Your task to perform on an android device: Empty the shopping cart on ebay.com. Search for razer blade on ebay.com, select the first entry, and add it to the cart. Image 0: 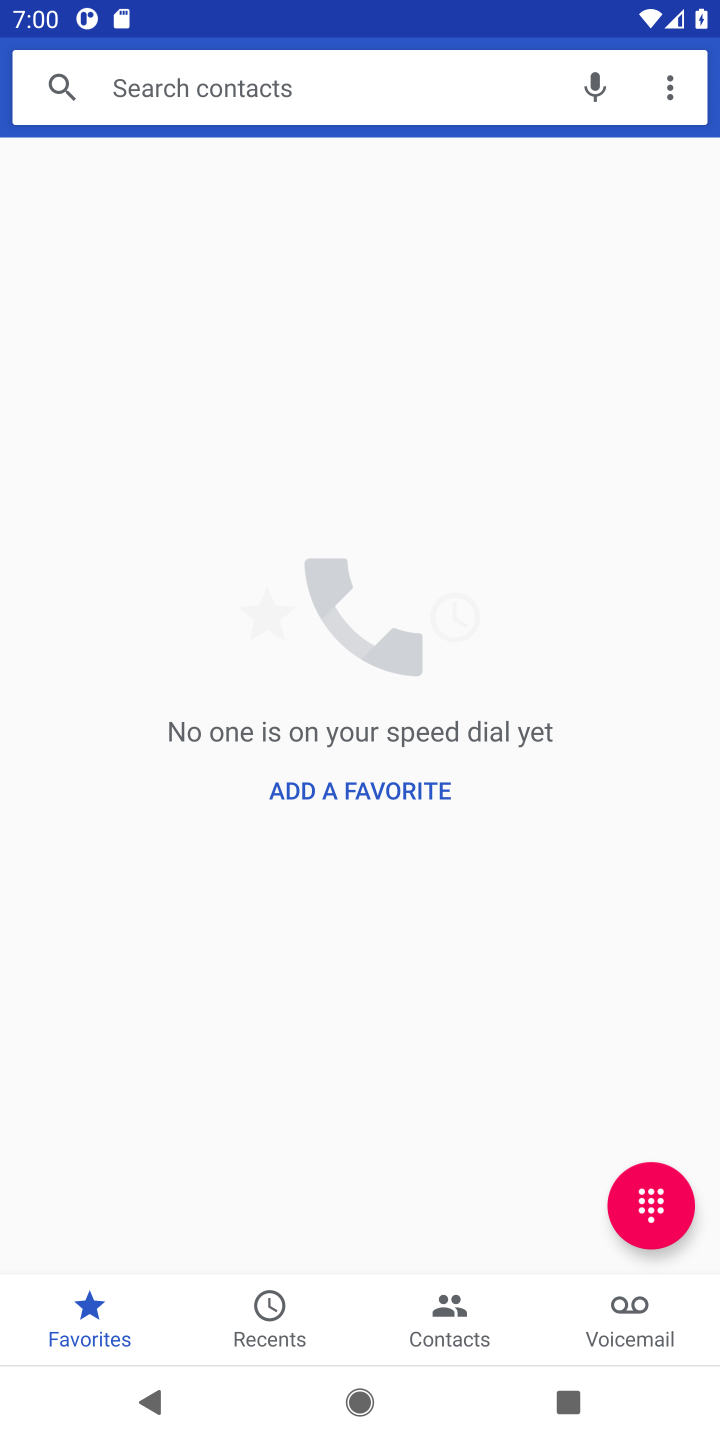
Step 0: press home button
Your task to perform on an android device: Empty the shopping cart on ebay.com. Search for razer blade on ebay.com, select the first entry, and add it to the cart. Image 1: 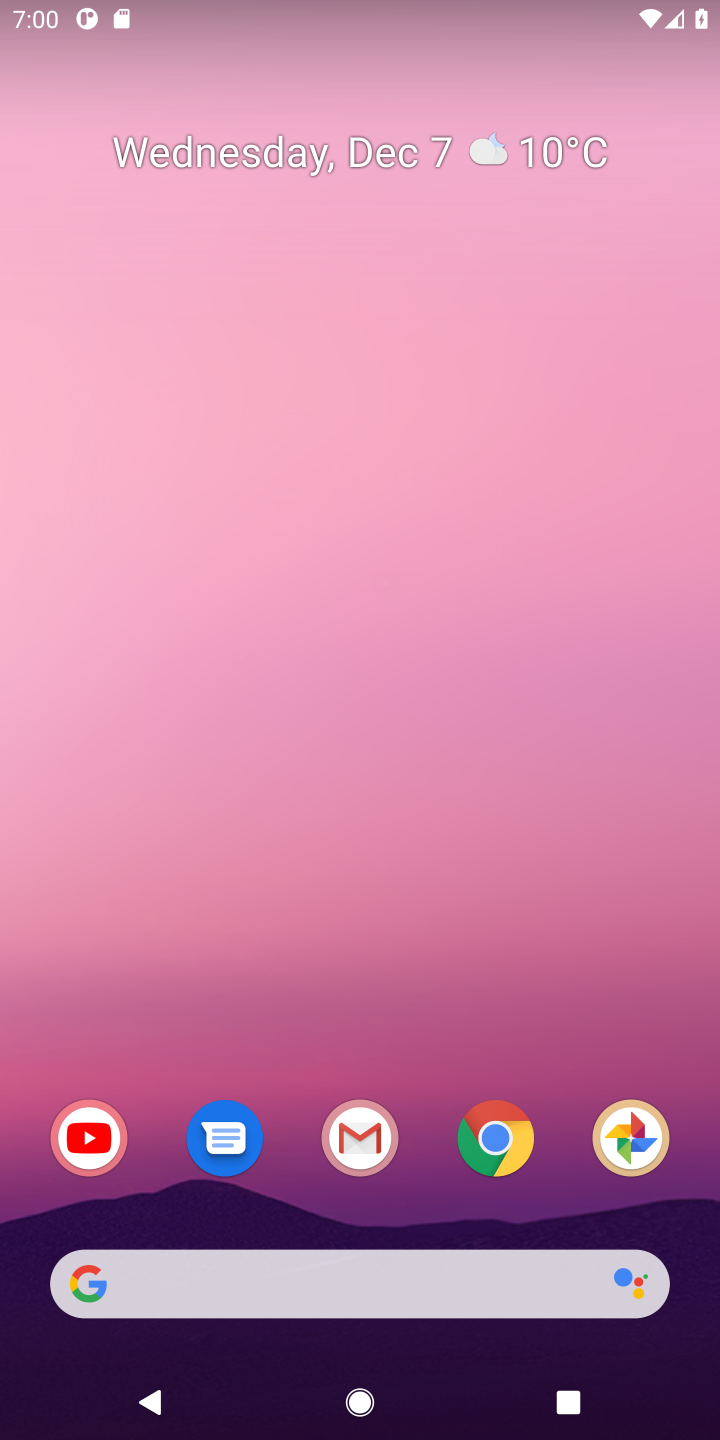
Step 1: click (159, 1278)
Your task to perform on an android device: Empty the shopping cart on ebay.com. Search for razer blade on ebay.com, select the first entry, and add it to the cart. Image 2: 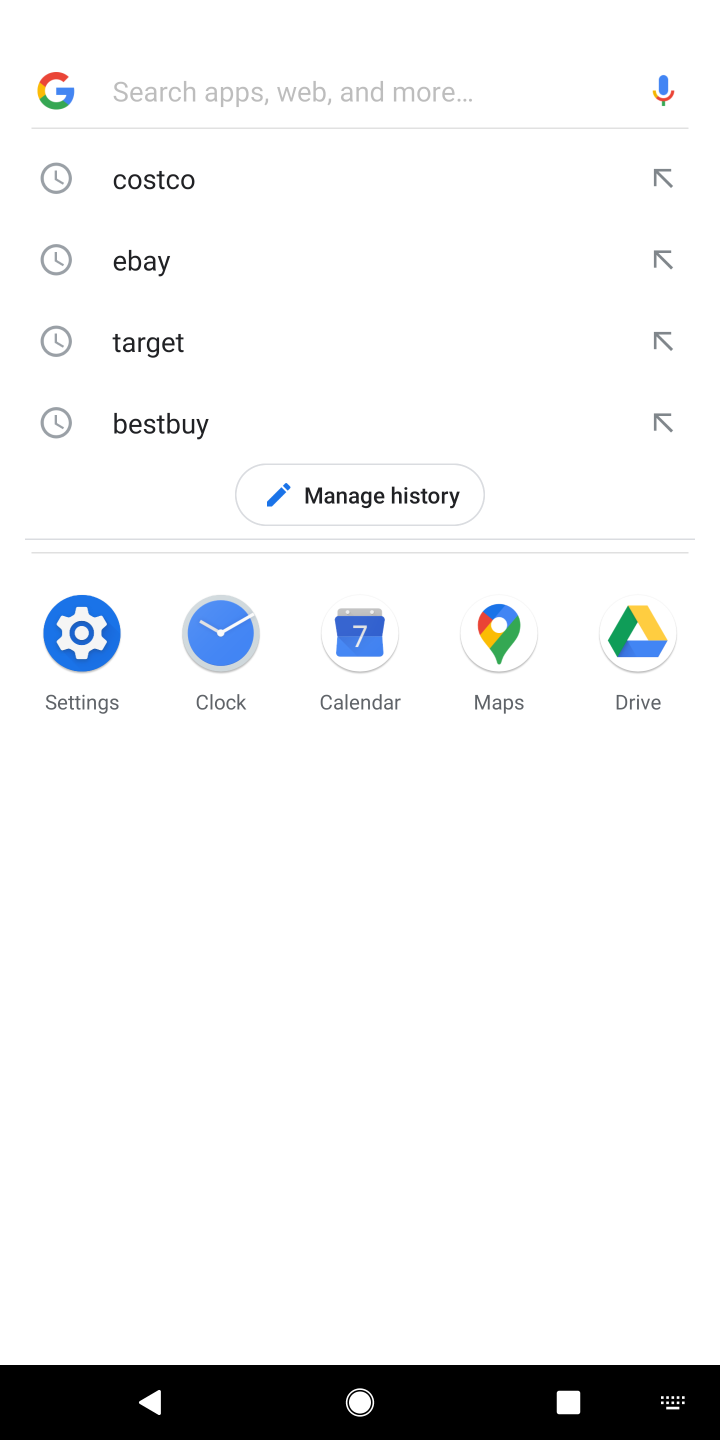
Step 2: type "ebay.com"
Your task to perform on an android device: Empty the shopping cart on ebay.com. Search for razer blade on ebay.com, select the first entry, and add it to the cart. Image 3: 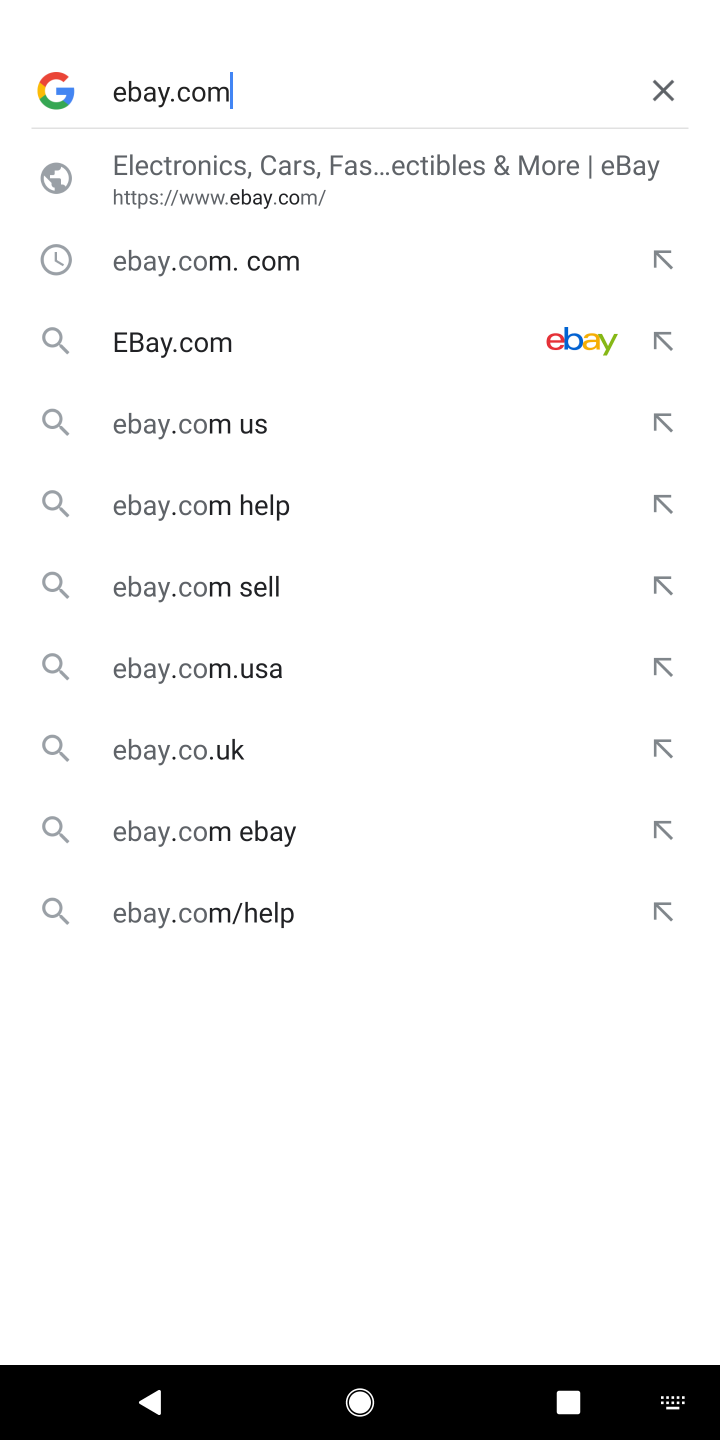
Step 3: press enter
Your task to perform on an android device: Empty the shopping cart on ebay.com. Search for razer blade on ebay.com, select the first entry, and add it to the cart. Image 4: 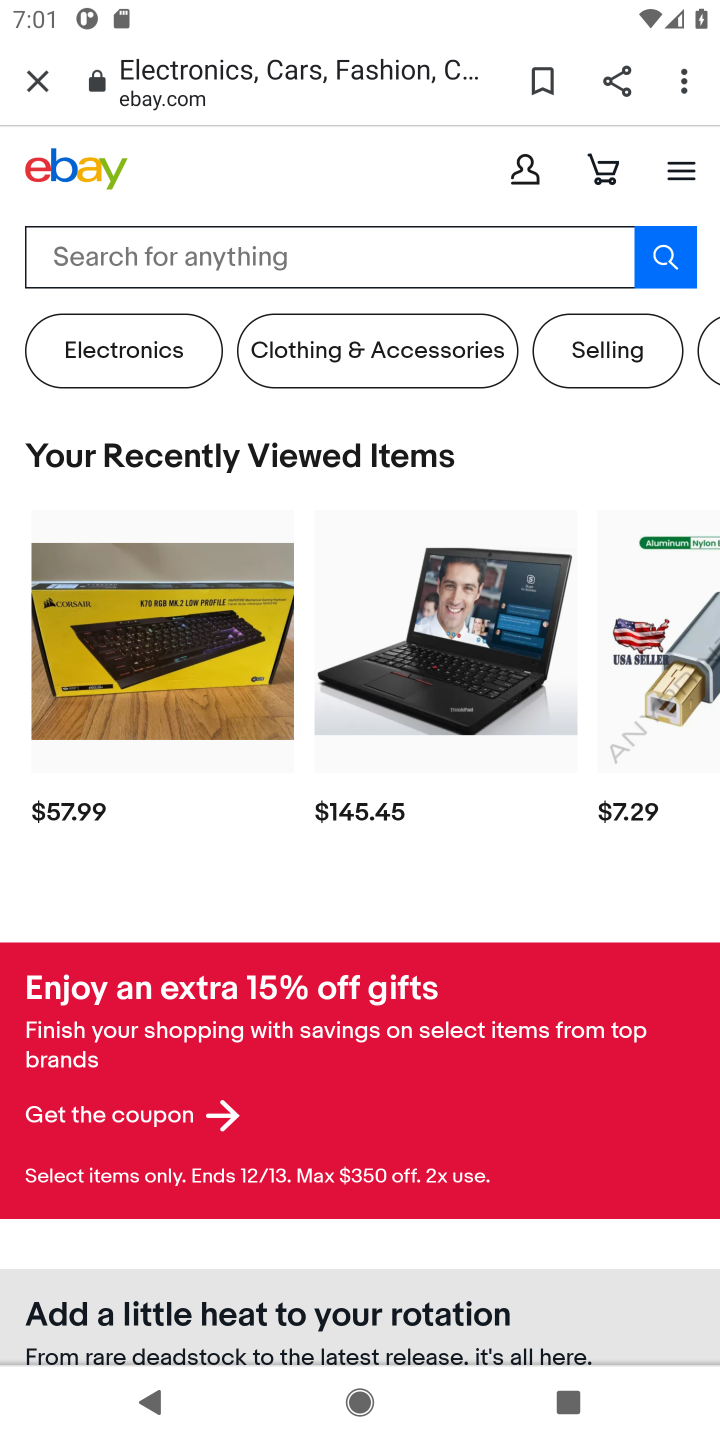
Step 4: click (598, 159)
Your task to perform on an android device: Empty the shopping cart on ebay.com. Search for razer blade on ebay.com, select the first entry, and add it to the cart. Image 5: 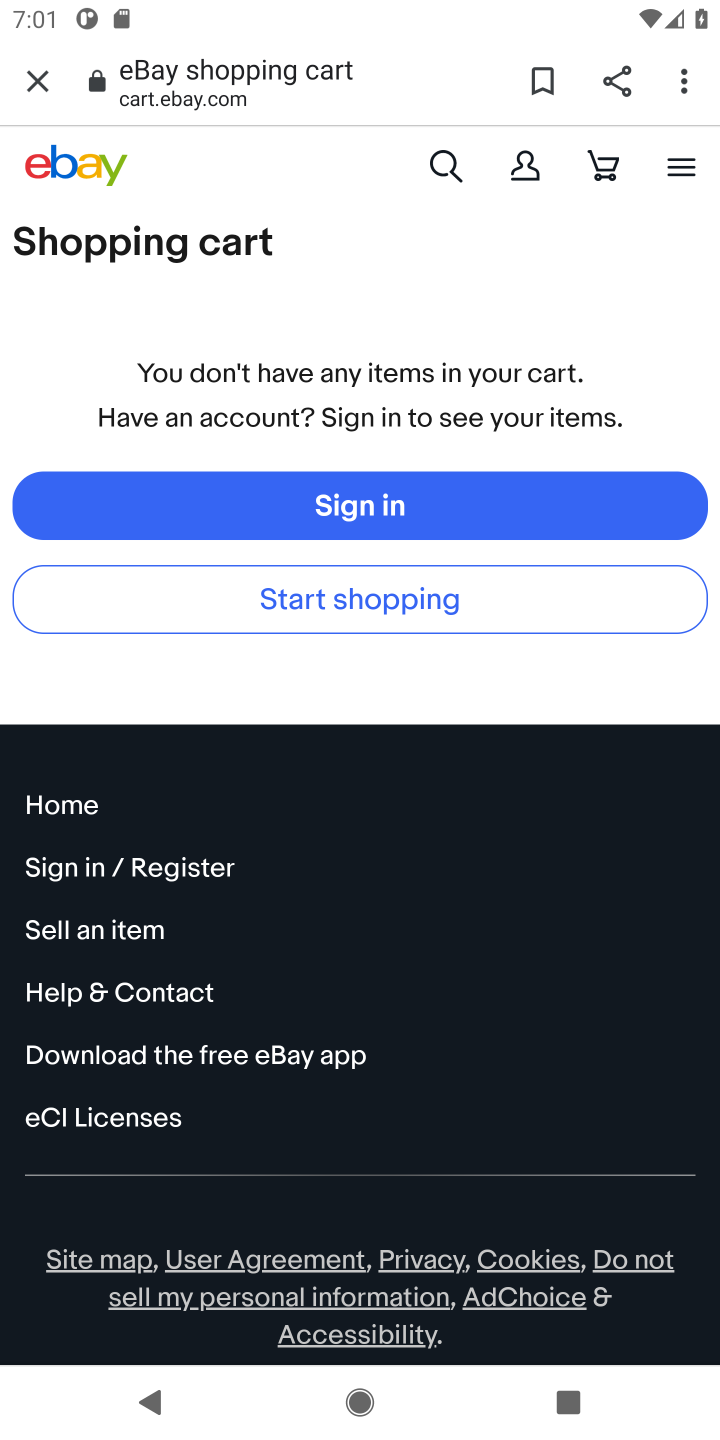
Step 5: click (433, 157)
Your task to perform on an android device: Empty the shopping cart on ebay.com. Search for razer blade on ebay.com, select the first entry, and add it to the cart. Image 6: 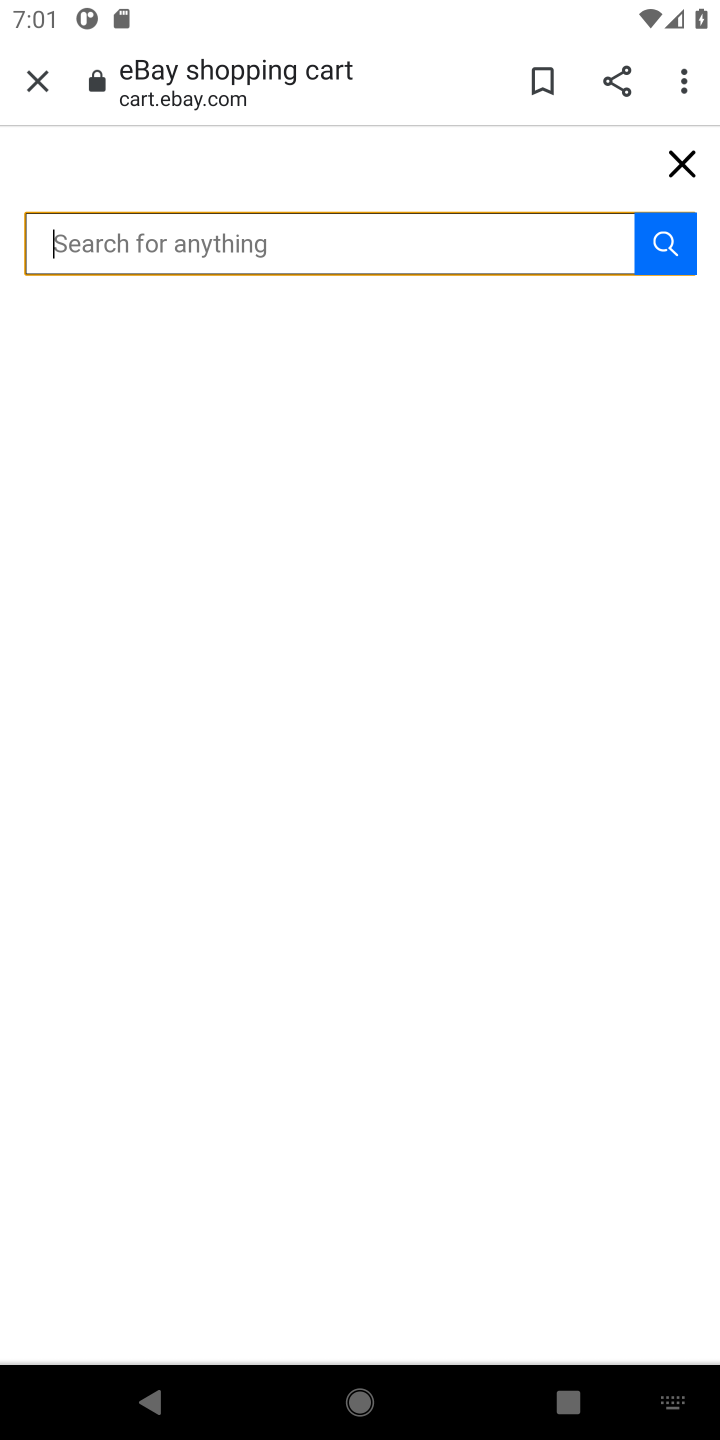
Step 6: press enter
Your task to perform on an android device: Empty the shopping cart on ebay.com. Search for razer blade on ebay.com, select the first entry, and add it to the cart. Image 7: 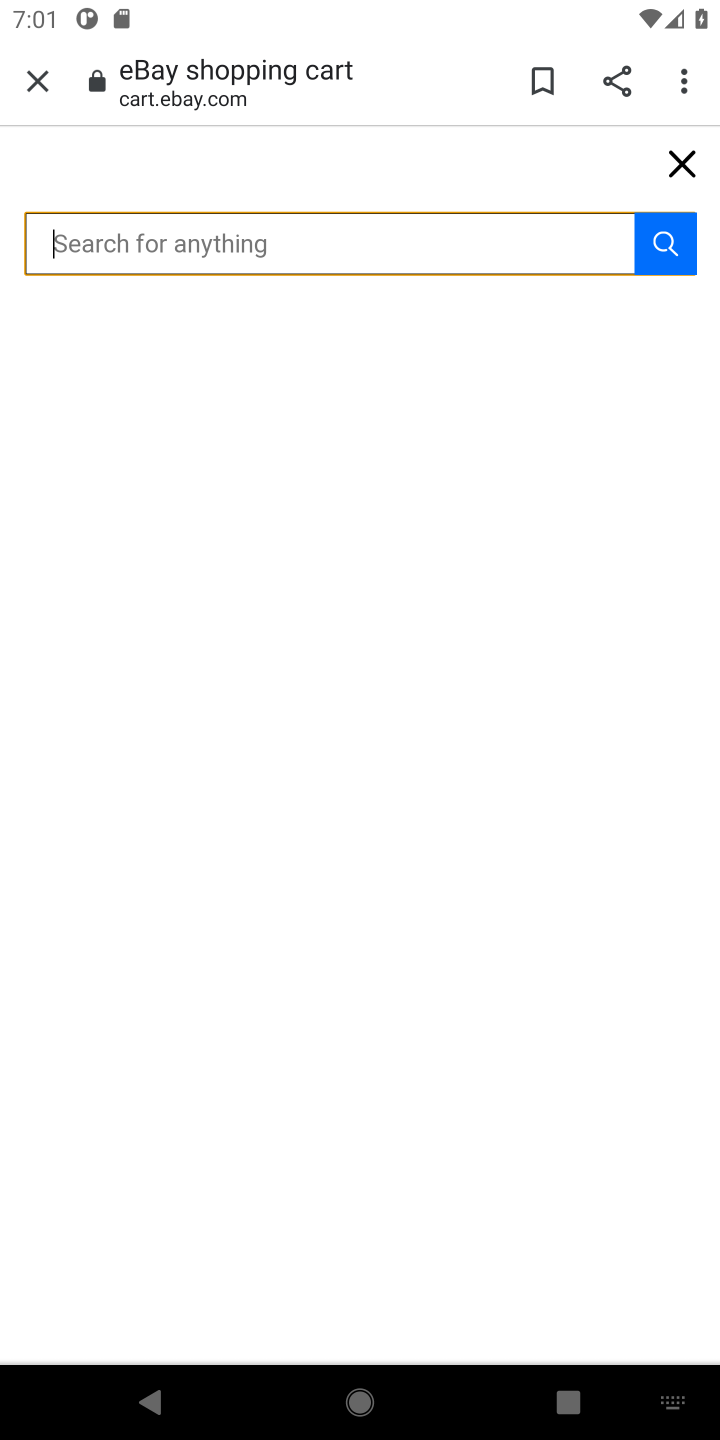
Step 7: type "razer blade"
Your task to perform on an android device: Empty the shopping cart on ebay.com. Search for razer blade on ebay.com, select the first entry, and add it to the cart. Image 8: 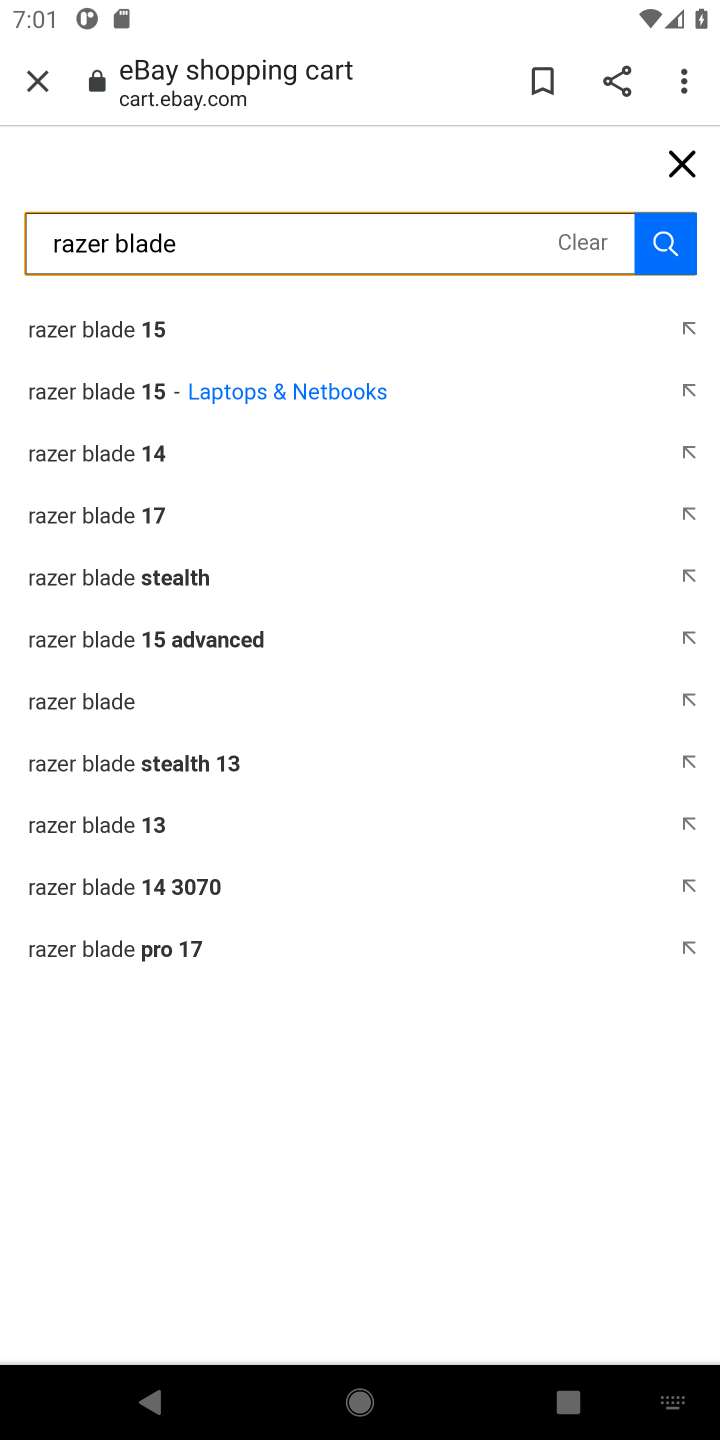
Step 8: click (670, 240)
Your task to perform on an android device: Empty the shopping cart on ebay.com. Search for razer blade on ebay.com, select the first entry, and add it to the cart. Image 9: 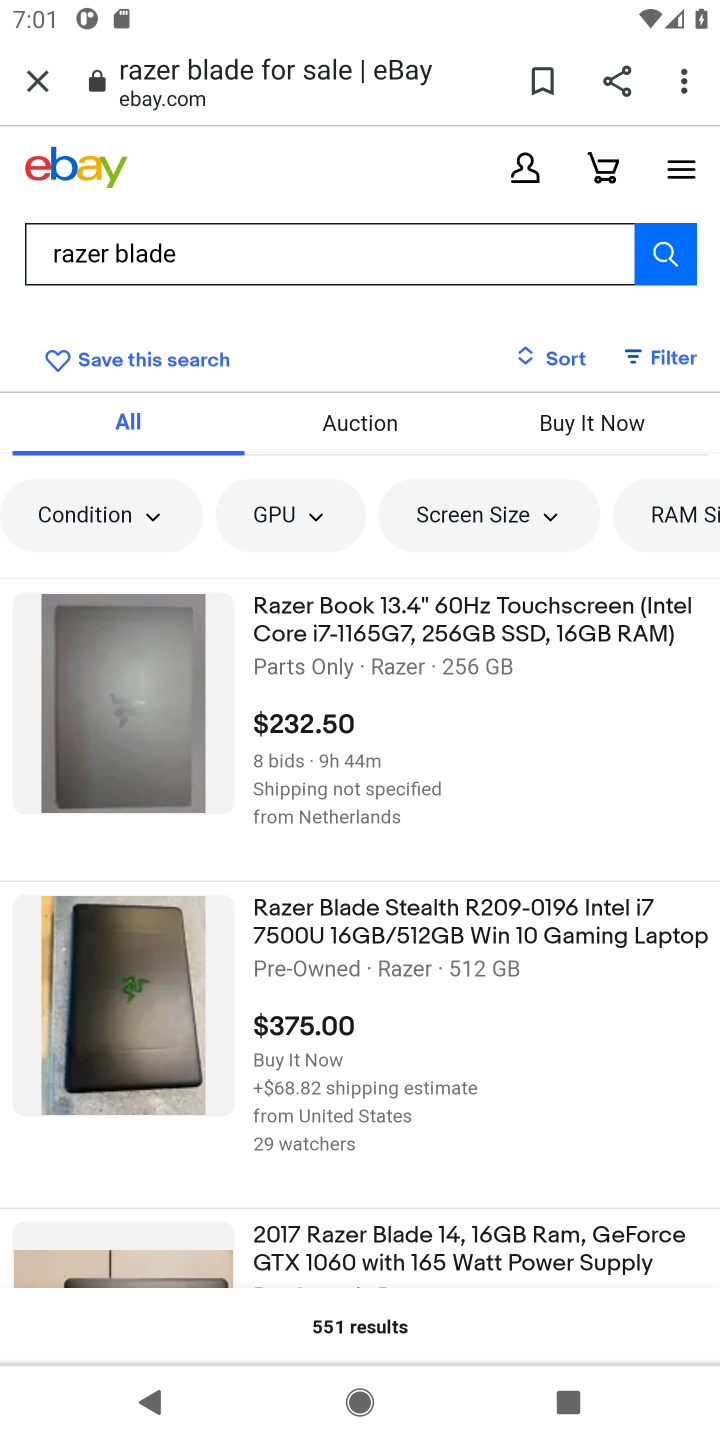
Step 9: click (400, 922)
Your task to perform on an android device: Empty the shopping cart on ebay.com. Search for razer blade on ebay.com, select the first entry, and add it to the cart. Image 10: 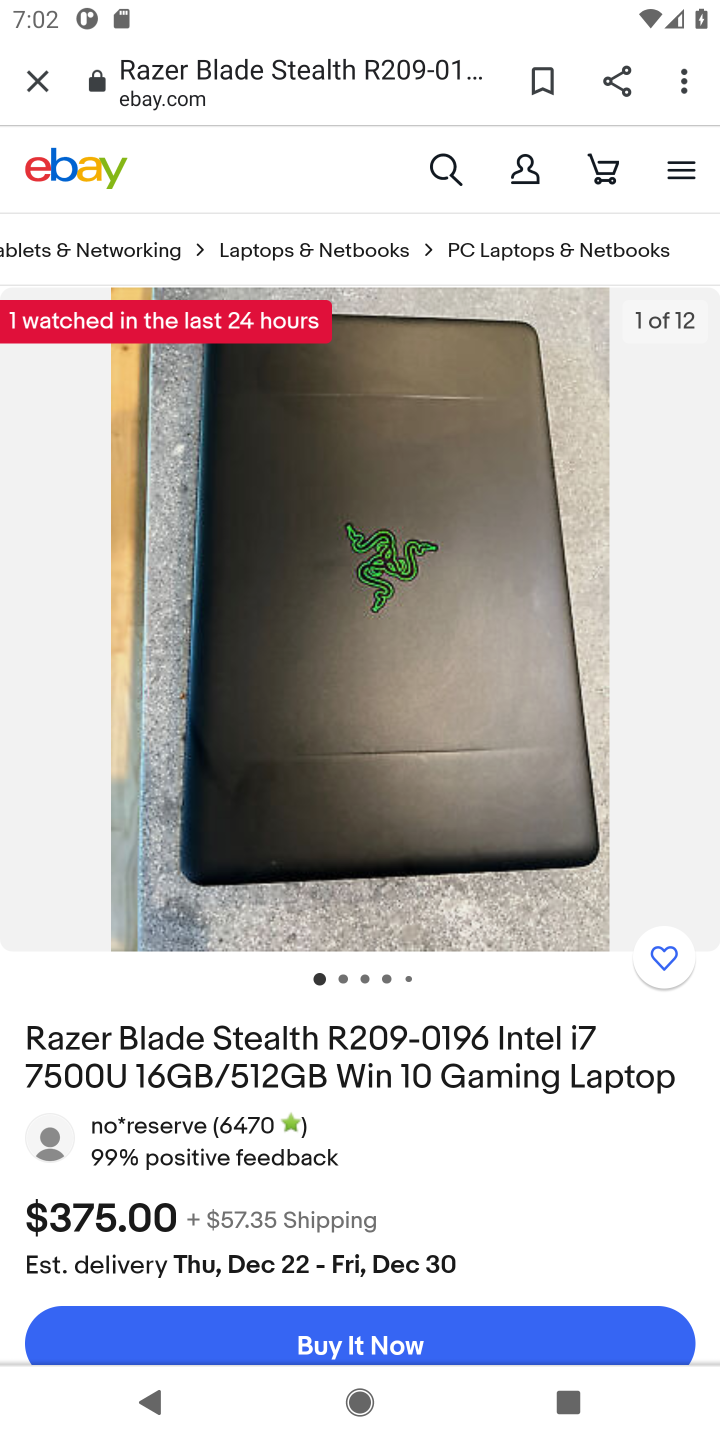
Step 10: drag from (367, 1119) to (365, 561)
Your task to perform on an android device: Empty the shopping cart on ebay.com. Search for razer blade on ebay.com, select the first entry, and add it to the cart. Image 11: 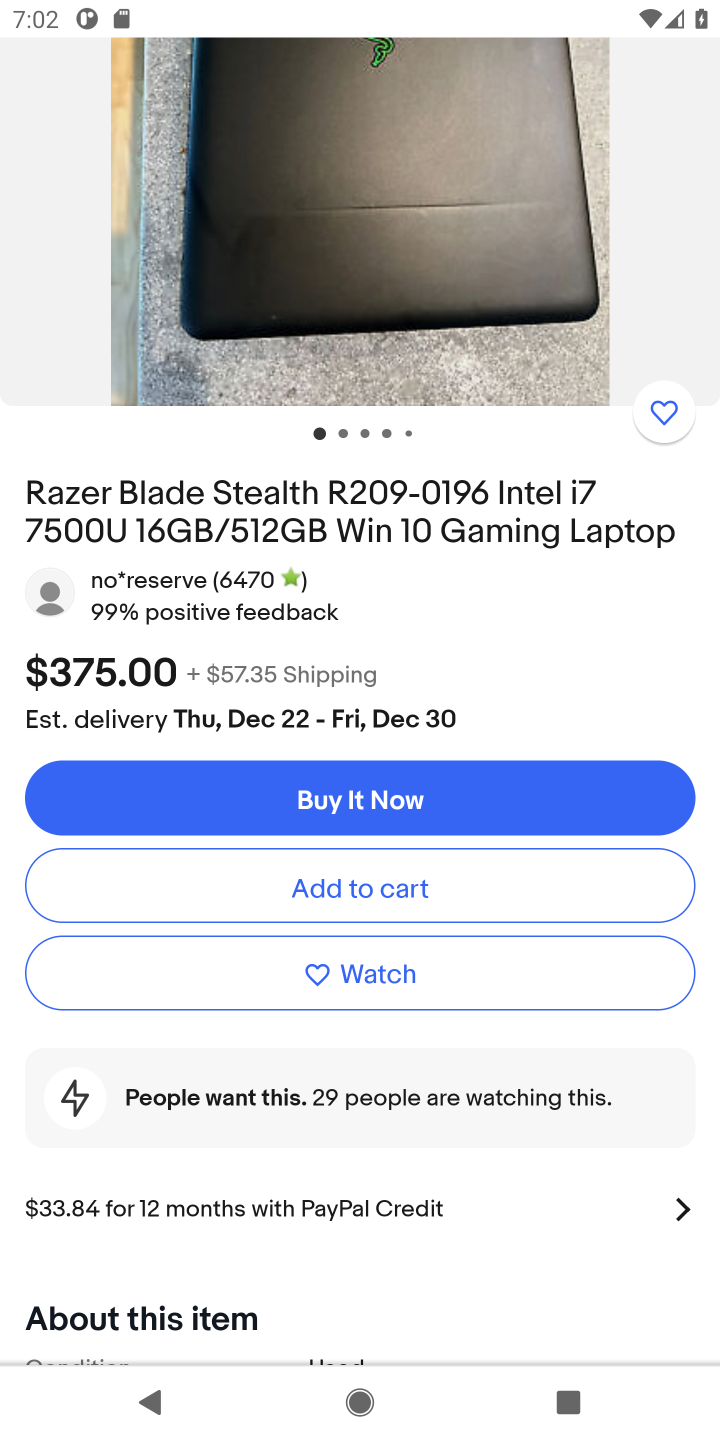
Step 11: drag from (379, 1103) to (449, 536)
Your task to perform on an android device: Empty the shopping cart on ebay.com. Search for razer blade on ebay.com, select the first entry, and add it to the cart. Image 12: 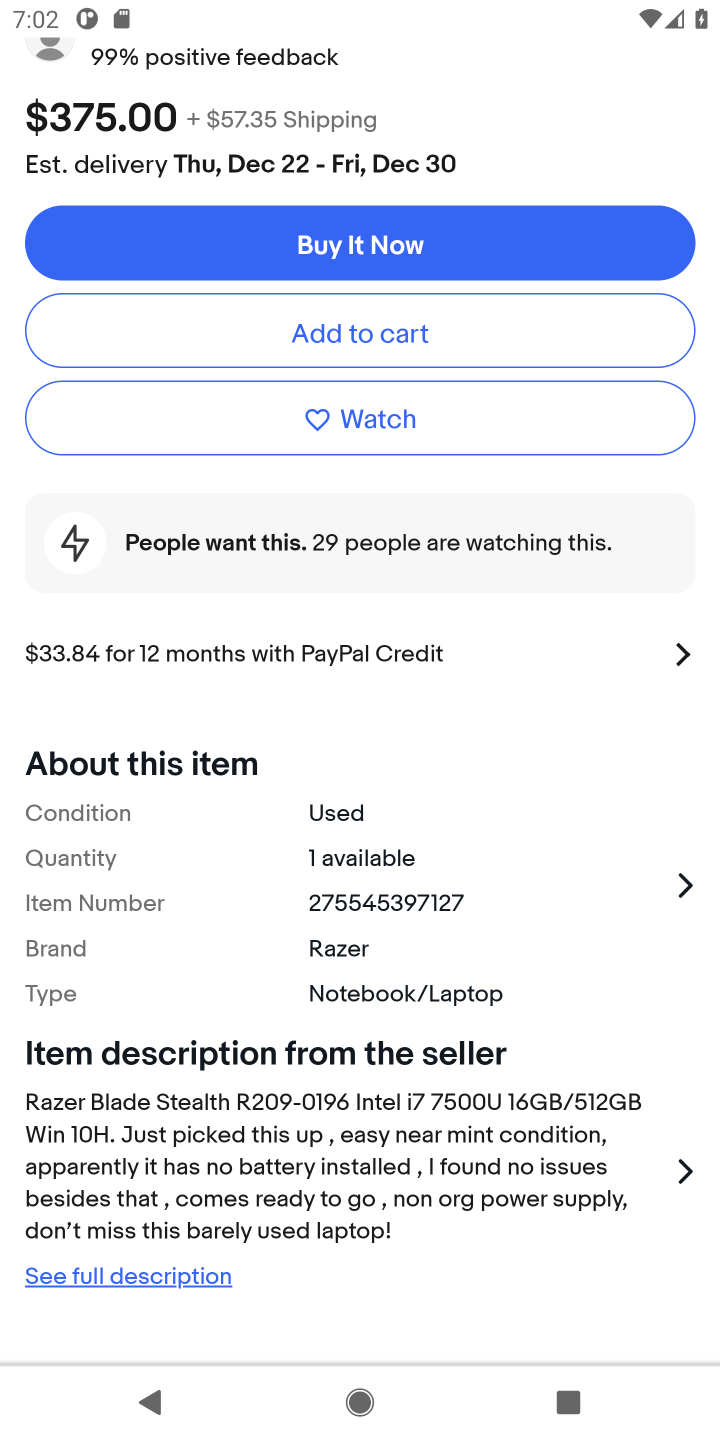
Step 12: click (336, 330)
Your task to perform on an android device: Empty the shopping cart on ebay.com. Search for razer blade on ebay.com, select the first entry, and add it to the cart. Image 13: 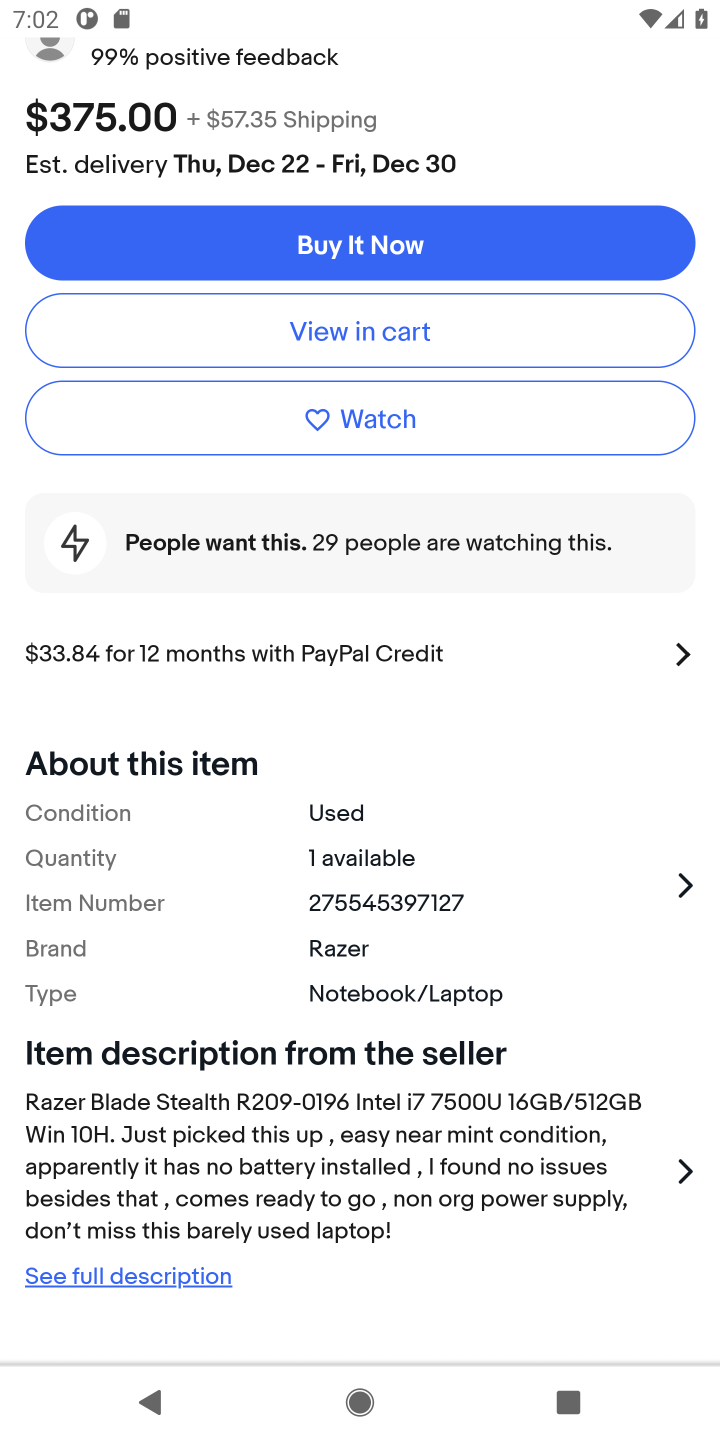
Step 13: task complete